Your task to perform on an android device: What's the news in South Korea? Image 0: 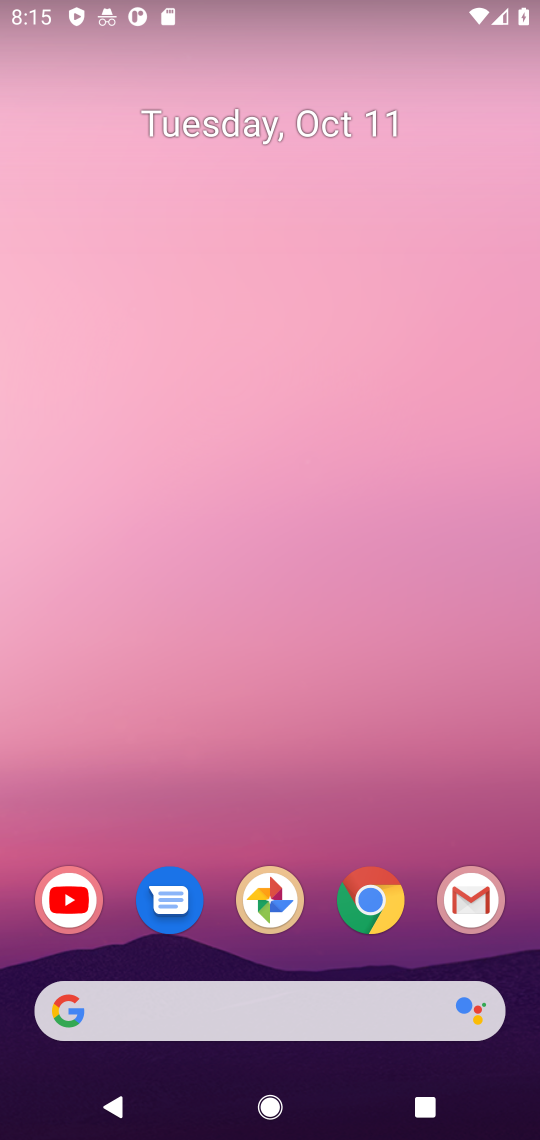
Step 0: click (383, 899)
Your task to perform on an android device: What's the news in South Korea? Image 1: 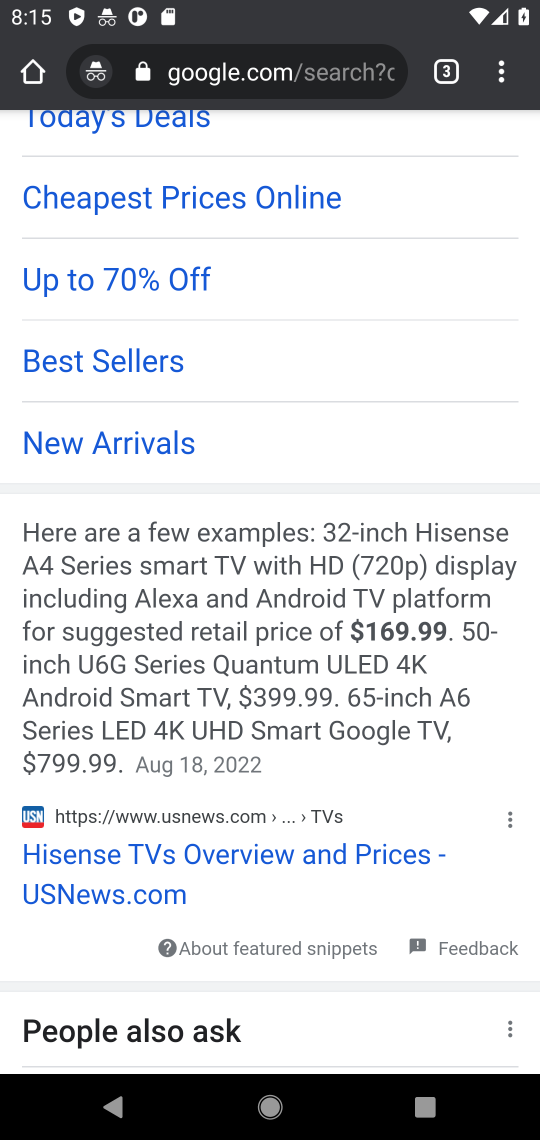
Step 1: click (215, 67)
Your task to perform on an android device: What's the news in South Korea? Image 2: 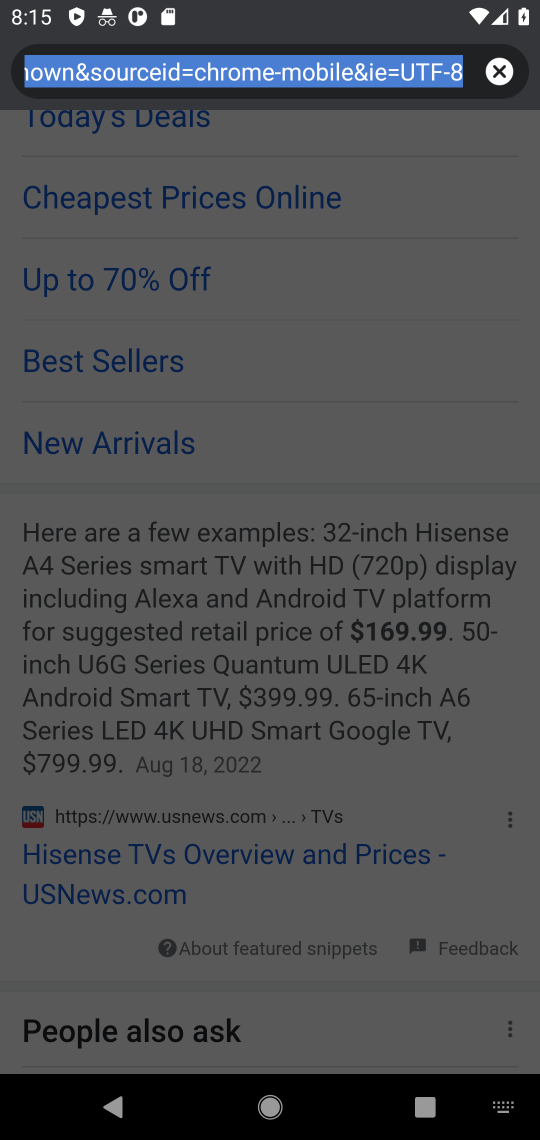
Step 2: type "news in South Korea"
Your task to perform on an android device: What's the news in South Korea? Image 3: 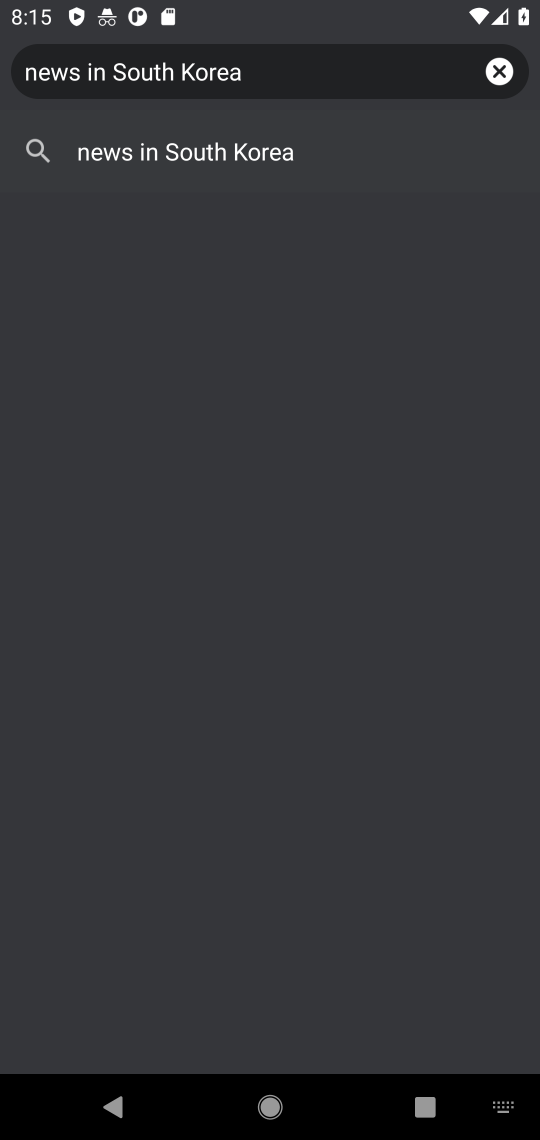
Step 3: click (390, 150)
Your task to perform on an android device: What's the news in South Korea? Image 4: 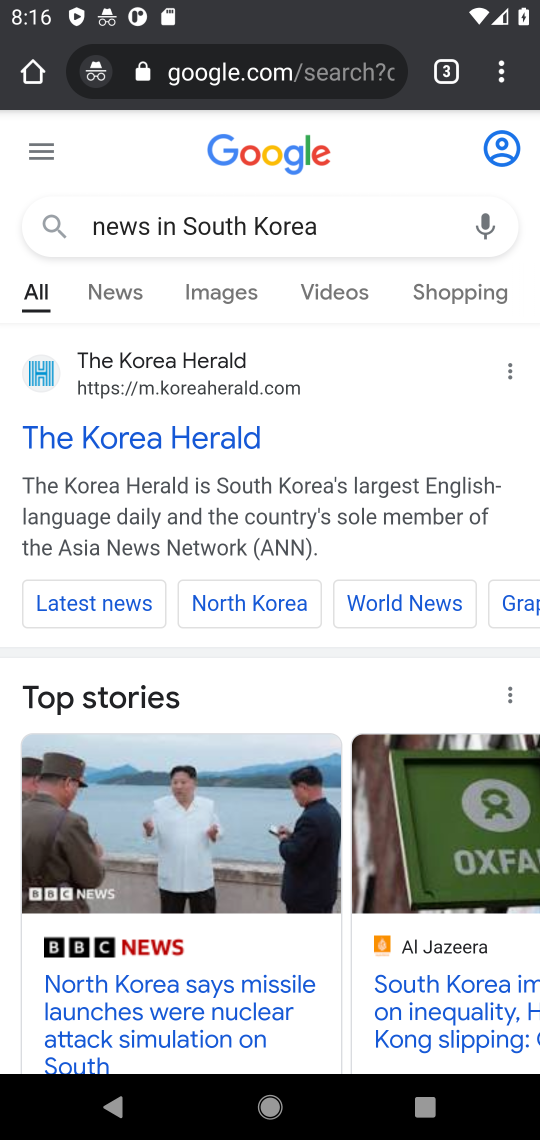
Step 4: click (136, 302)
Your task to perform on an android device: What's the news in South Korea? Image 5: 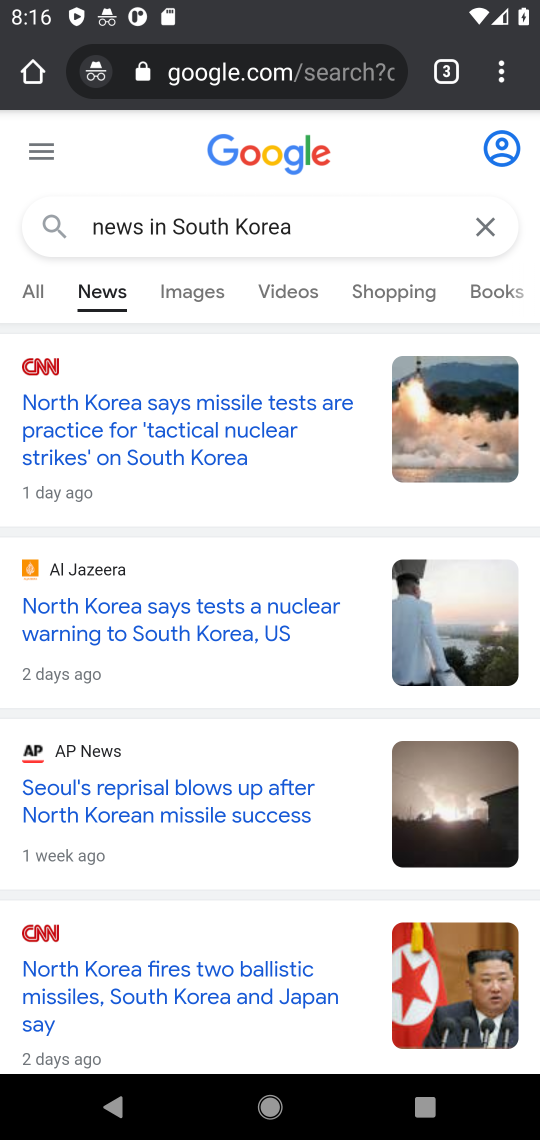
Step 5: task complete